Your task to perform on an android device: What's the weather going to be this weekend? Image 0: 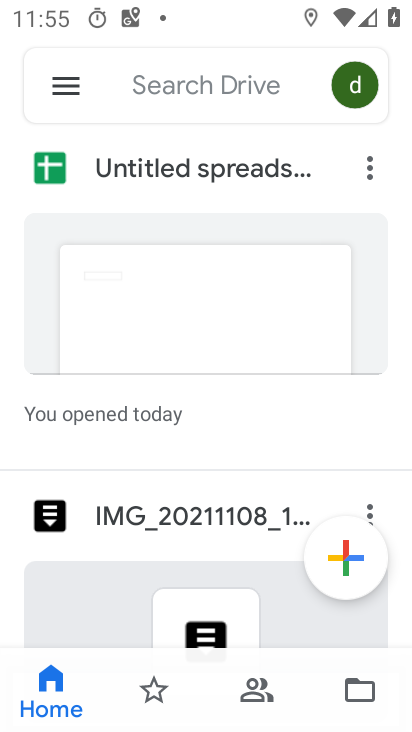
Step 0: press home button
Your task to perform on an android device: What's the weather going to be this weekend? Image 1: 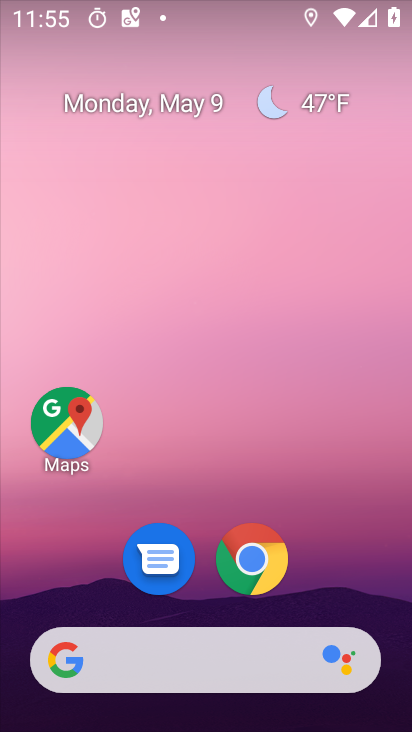
Step 1: click (249, 535)
Your task to perform on an android device: What's the weather going to be this weekend? Image 2: 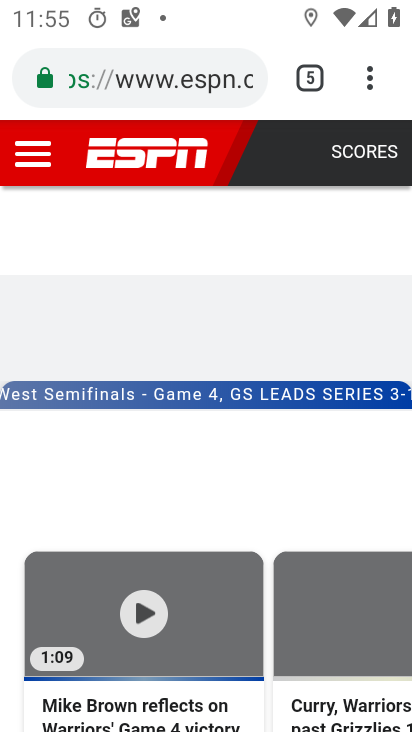
Step 2: click (144, 72)
Your task to perform on an android device: What's the weather going to be this weekend? Image 3: 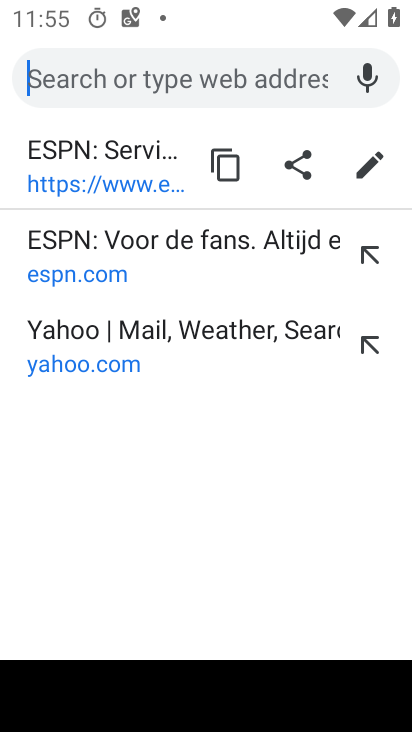
Step 3: type "What's the weather going to be this weekend?"
Your task to perform on an android device: What's the weather going to be this weekend? Image 4: 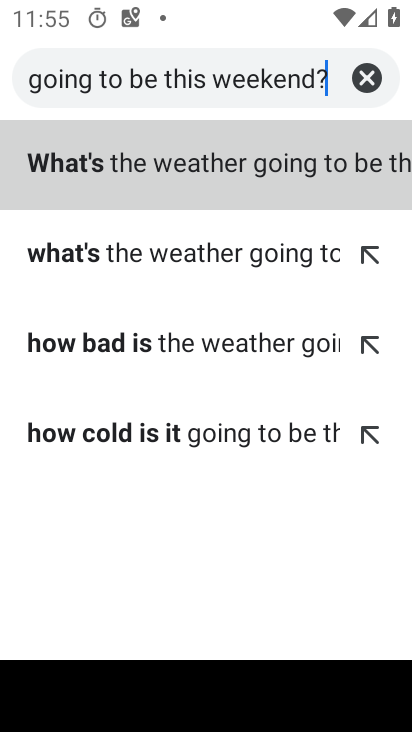
Step 4: click (162, 172)
Your task to perform on an android device: What's the weather going to be this weekend? Image 5: 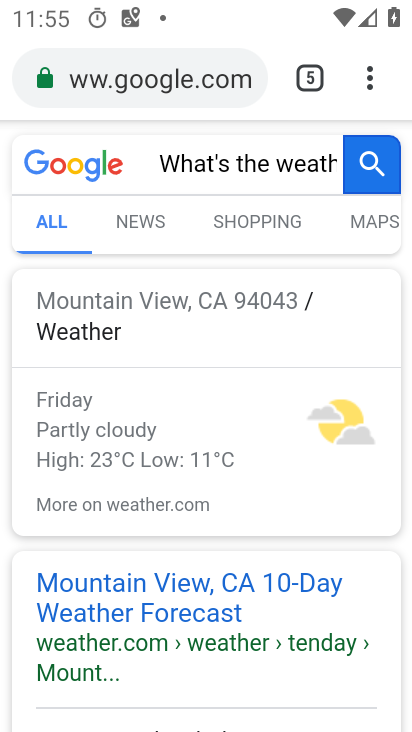
Step 5: task complete